Your task to perform on an android device: Open the calendar app, open the side menu, and click the "Day" option Image 0: 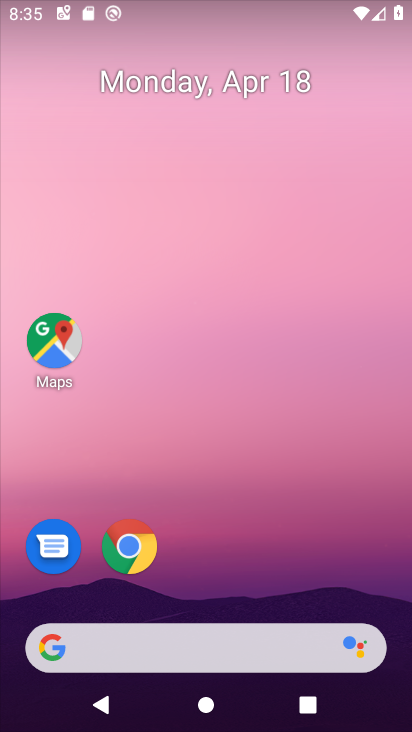
Step 0: drag from (263, 568) to (155, 243)
Your task to perform on an android device: Open the calendar app, open the side menu, and click the "Day" option Image 1: 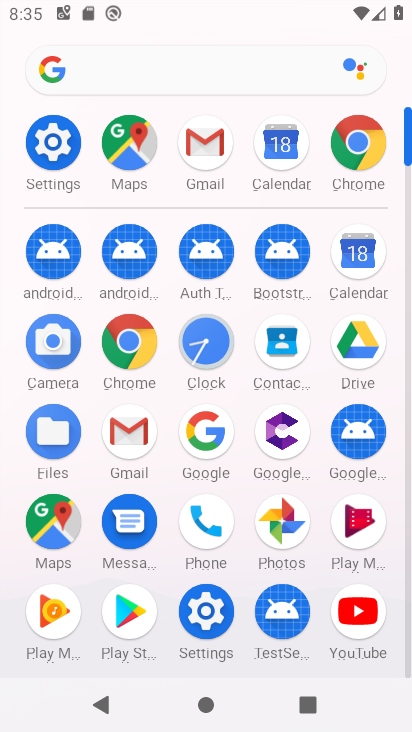
Step 1: click (352, 263)
Your task to perform on an android device: Open the calendar app, open the side menu, and click the "Day" option Image 2: 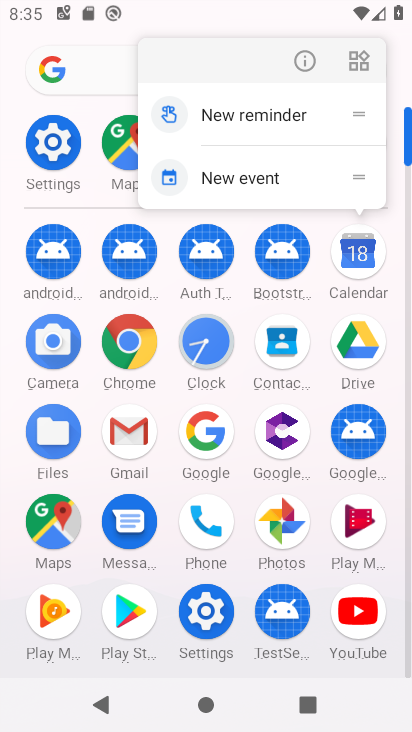
Step 2: click (352, 263)
Your task to perform on an android device: Open the calendar app, open the side menu, and click the "Day" option Image 3: 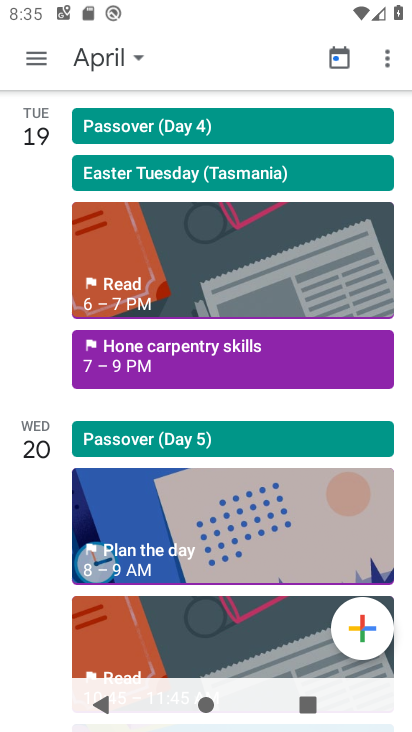
Step 3: click (35, 80)
Your task to perform on an android device: Open the calendar app, open the side menu, and click the "Day" option Image 4: 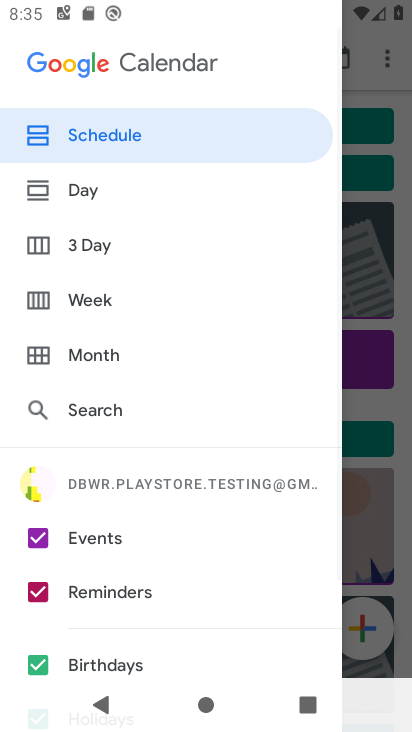
Step 4: click (127, 193)
Your task to perform on an android device: Open the calendar app, open the side menu, and click the "Day" option Image 5: 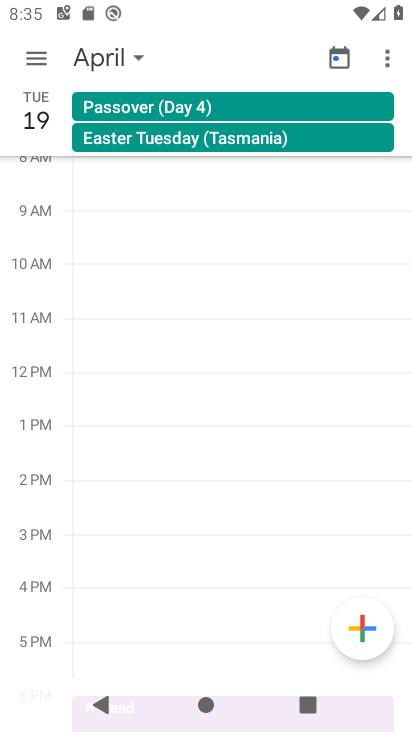
Step 5: task complete